Your task to perform on an android device: check battery use Image 0: 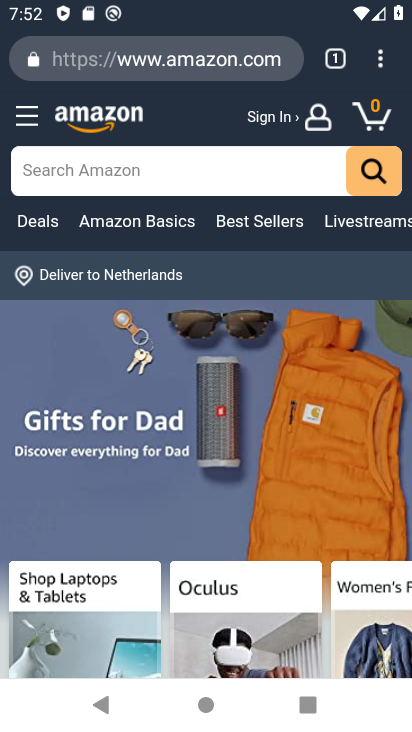
Step 0: press home button
Your task to perform on an android device: check battery use Image 1: 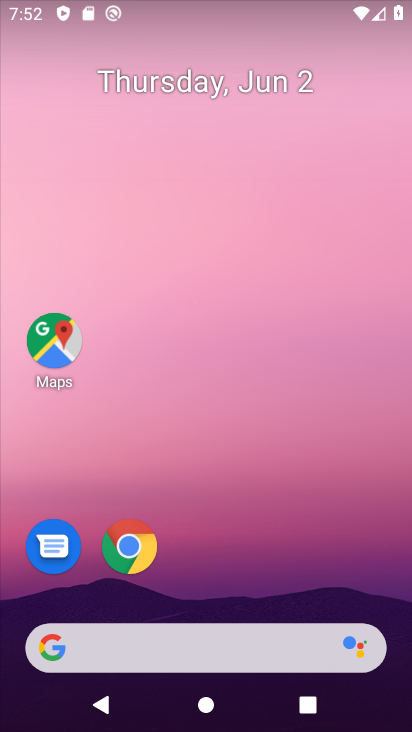
Step 1: drag from (227, 581) to (137, 144)
Your task to perform on an android device: check battery use Image 2: 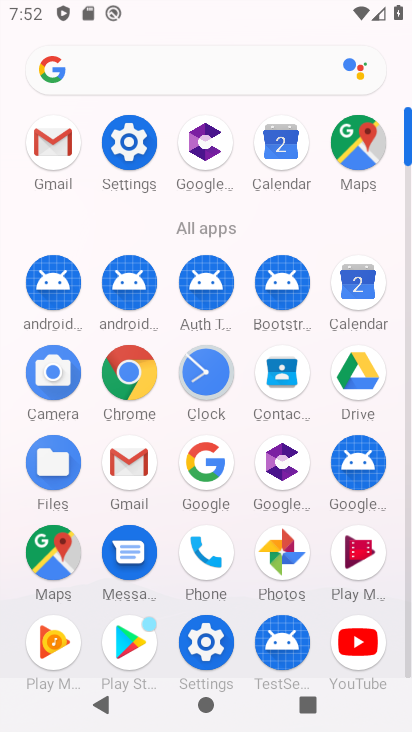
Step 2: click (209, 651)
Your task to perform on an android device: check battery use Image 3: 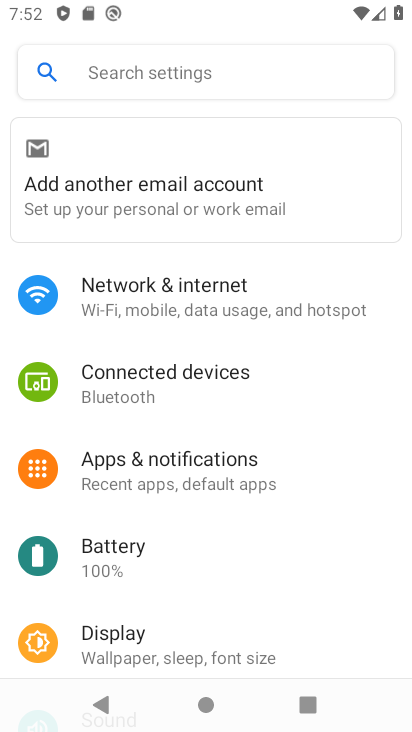
Step 3: drag from (106, 573) to (71, 278)
Your task to perform on an android device: check battery use Image 4: 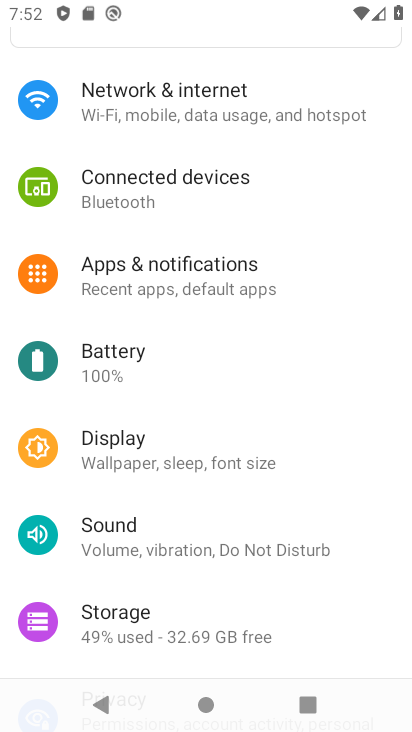
Step 4: drag from (136, 452) to (143, 252)
Your task to perform on an android device: check battery use Image 5: 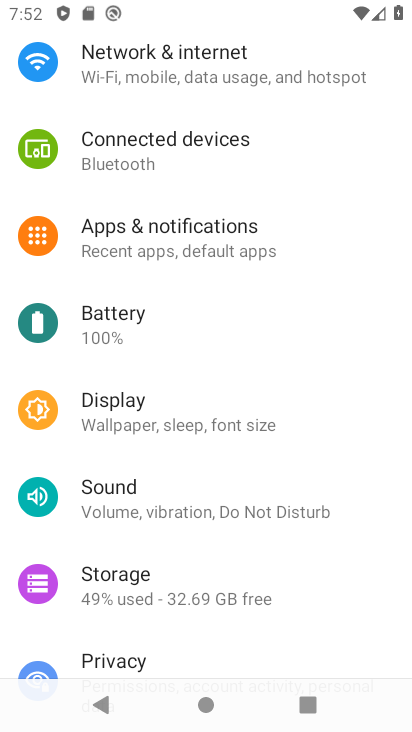
Step 5: click (107, 323)
Your task to perform on an android device: check battery use Image 6: 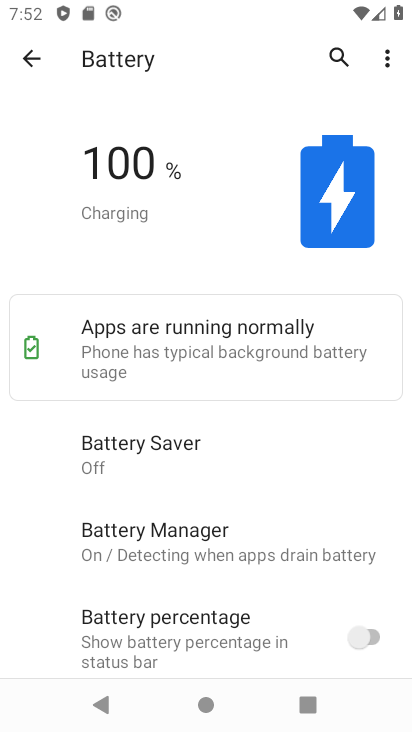
Step 6: task complete